Your task to perform on an android device: open app "Venmo" Image 0: 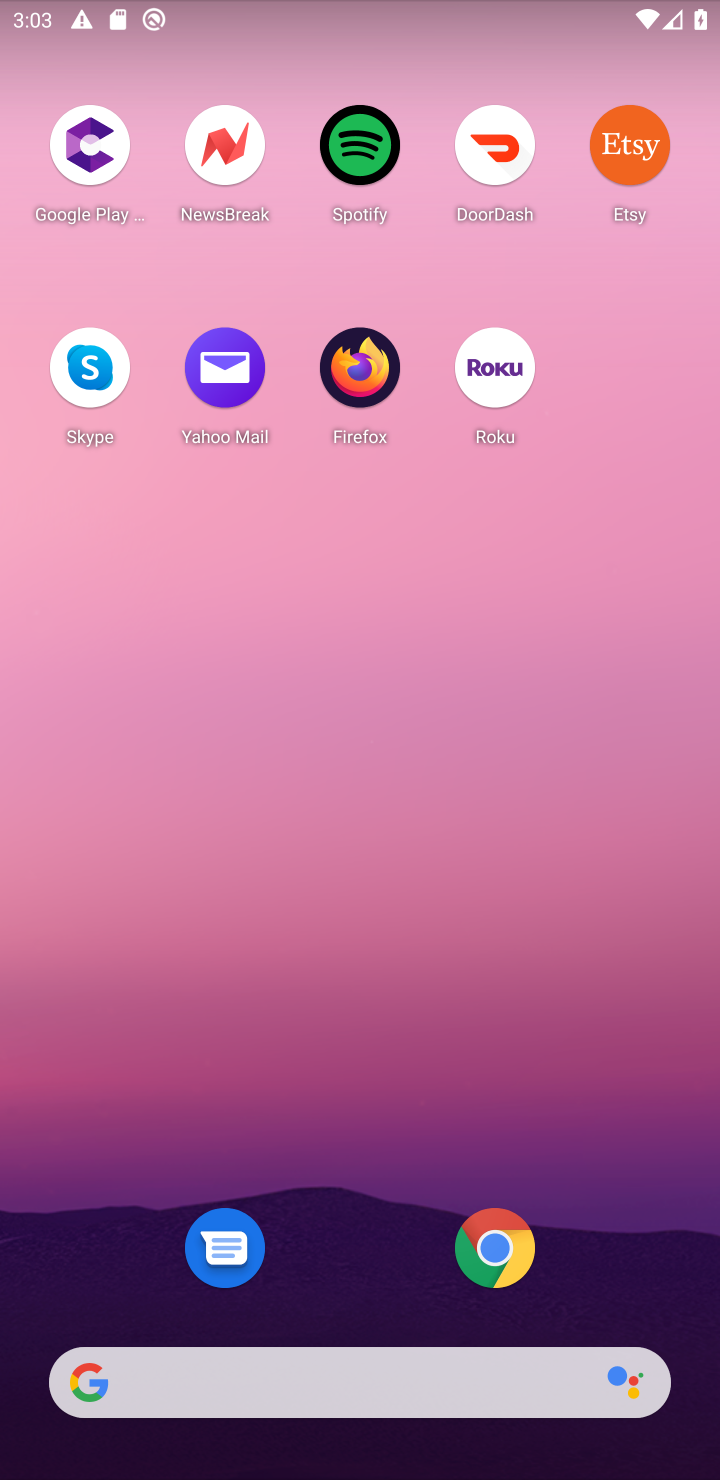
Step 0: drag from (392, 1168) to (349, 341)
Your task to perform on an android device: open app "Venmo" Image 1: 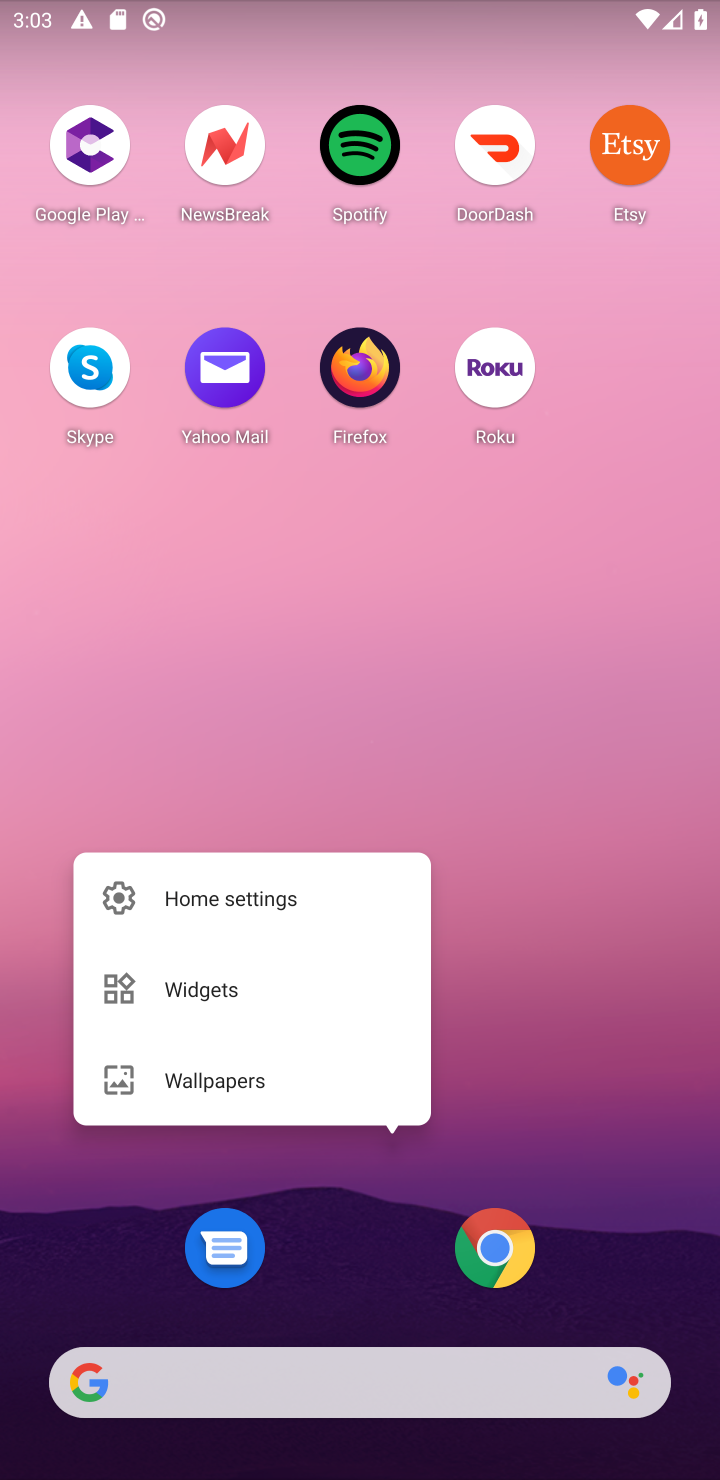
Step 1: click (518, 918)
Your task to perform on an android device: open app "Venmo" Image 2: 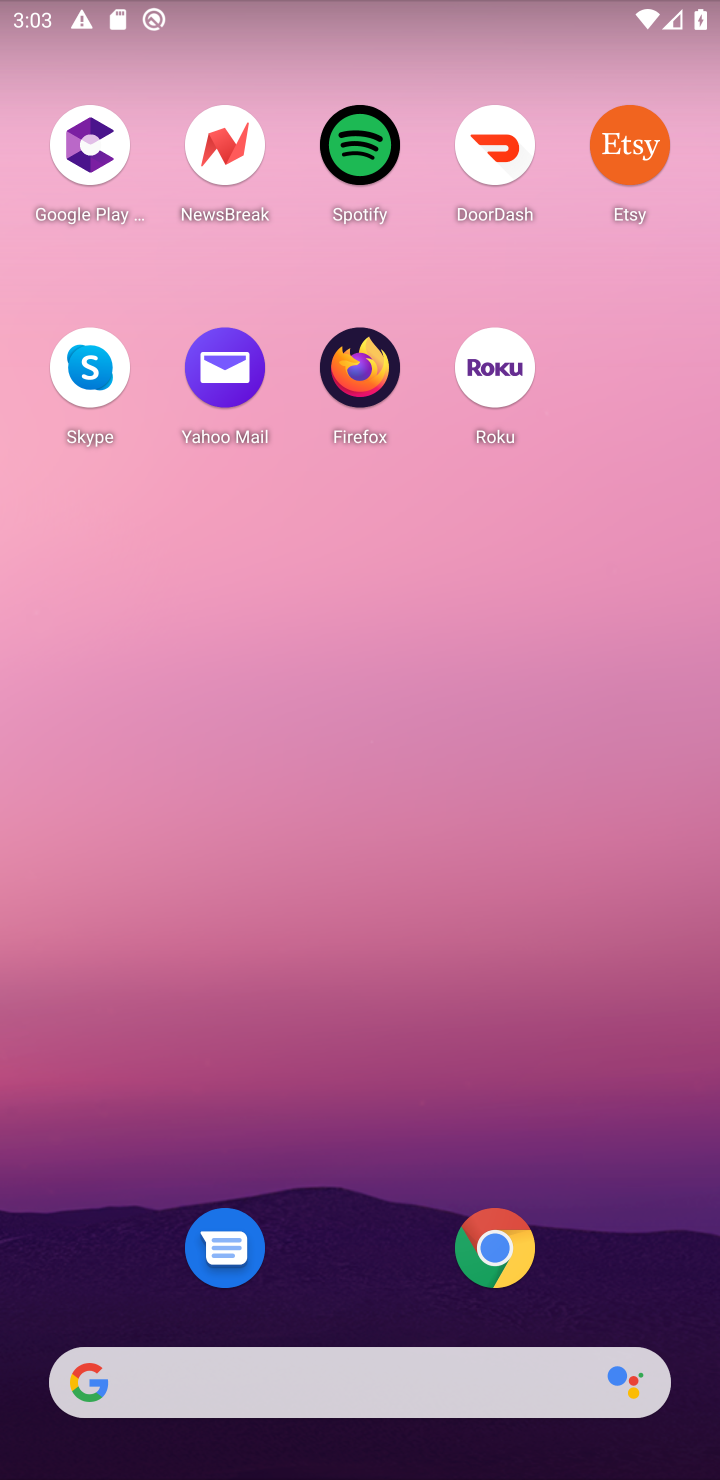
Step 2: drag from (329, 1329) to (243, 144)
Your task to perform on an android device: open app "Venmo" Image 3: 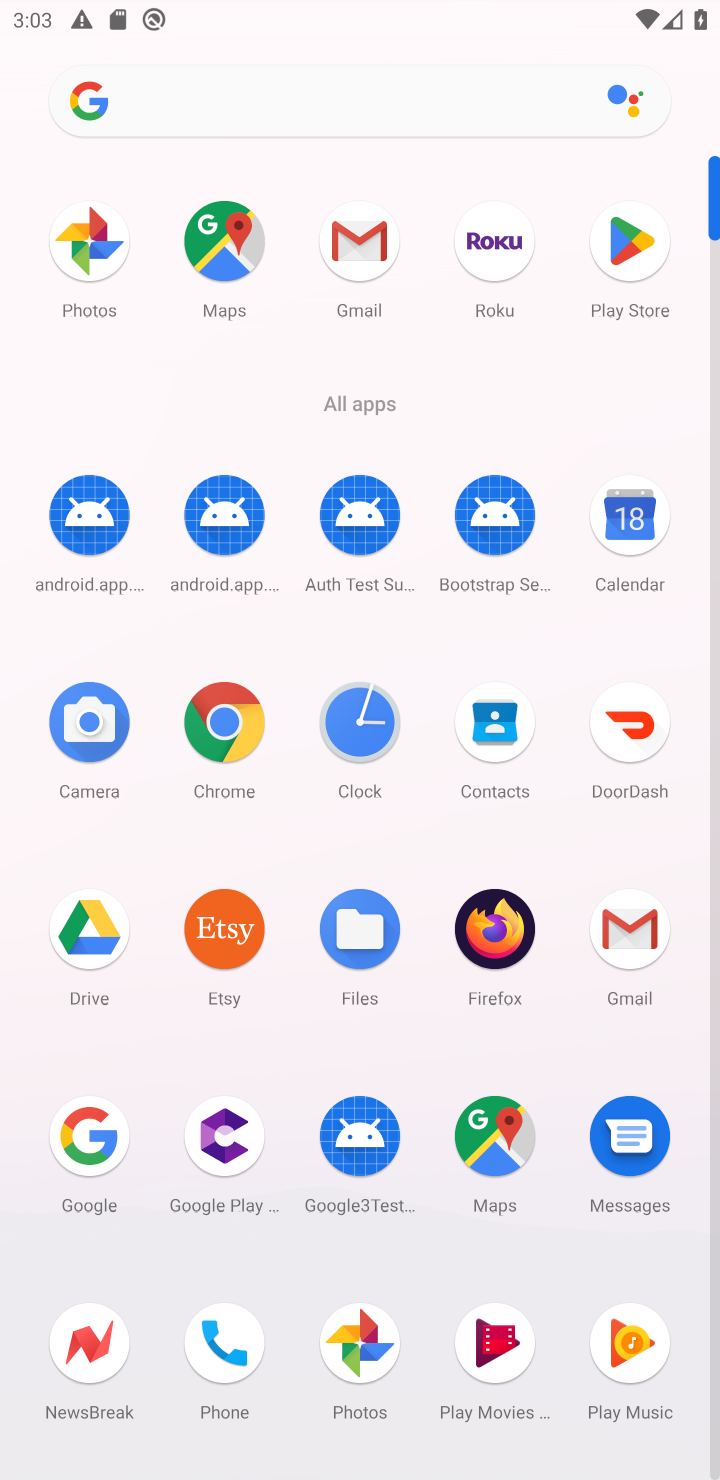
Step 3: click (628, 243)
Your task to perform on an android device: open app "Venmo" Image 4: 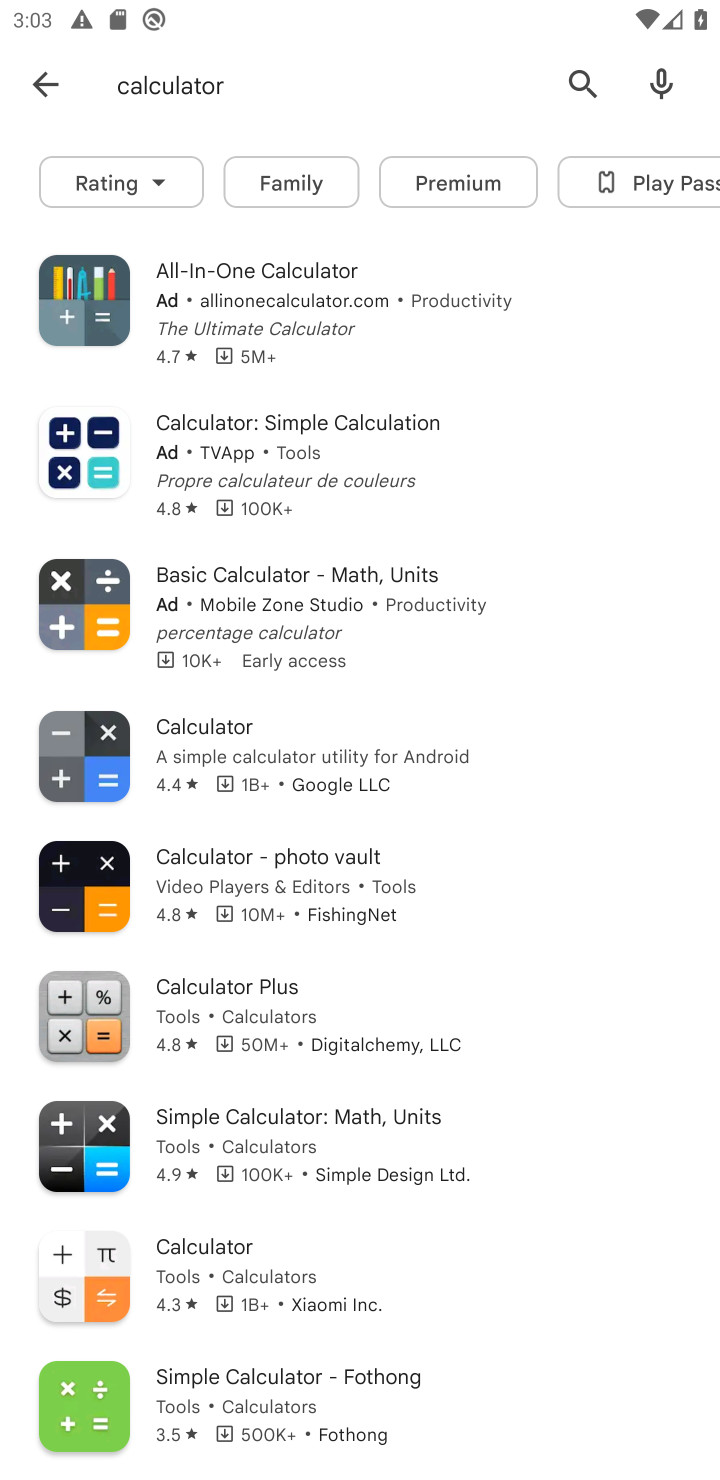
Step 4: click (567, 71)
Your task to perform on an android device: open app "Venmo" Image 5: 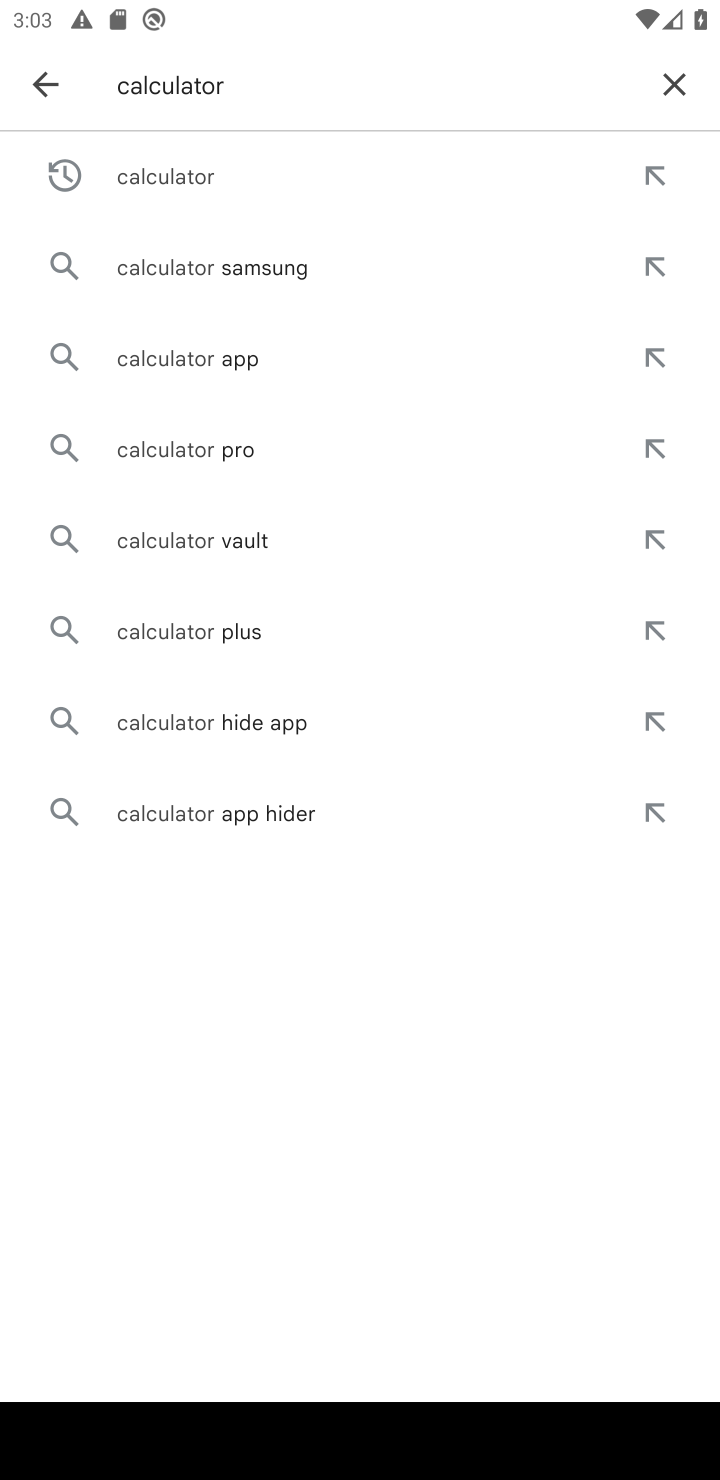
Step 5: click (667, 85)
Your task to perform on an android device: open app "Venmo" Image 6: 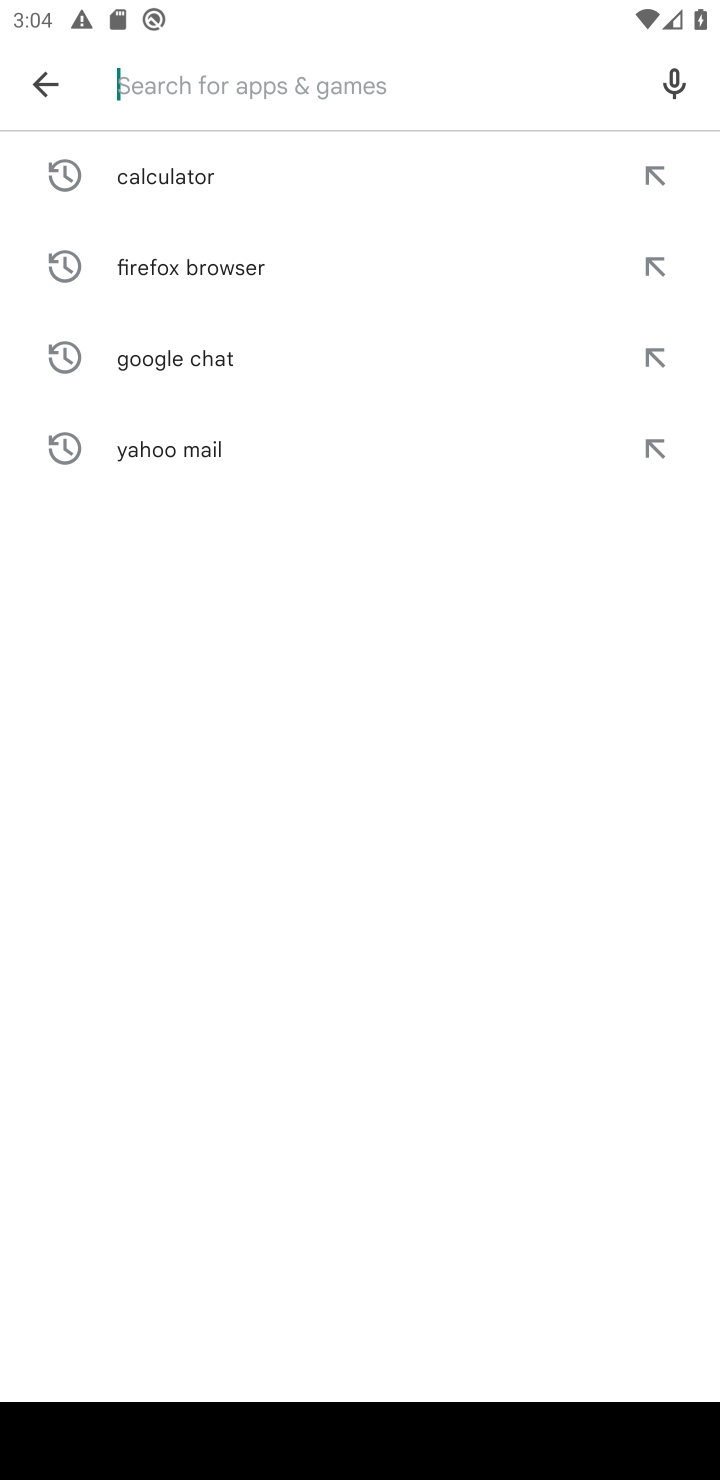
Step 6: type "Venmo"
Your task to perform on an android device: open app "Venmo" Image 7: 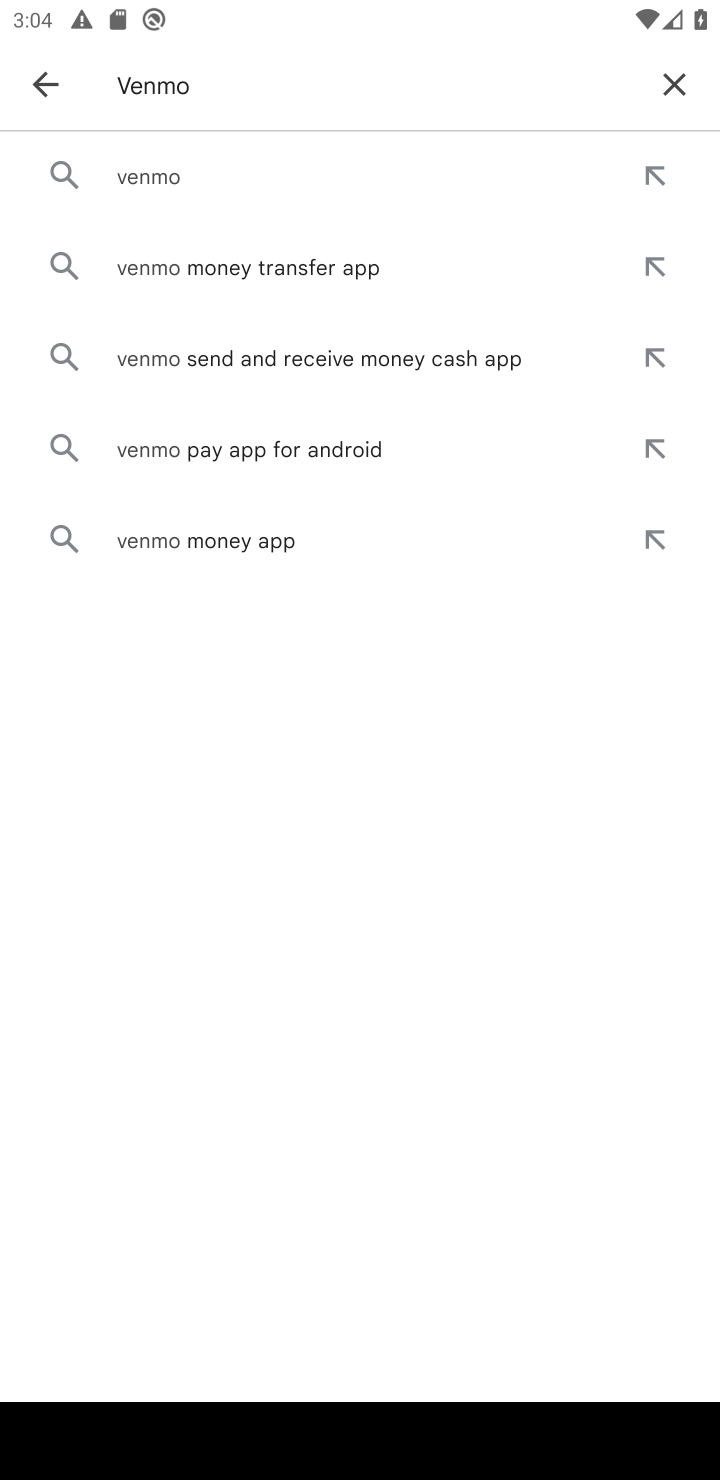
Step 7: click (134, 192)
Your task to perform on an android device: open app "Venmo" Image 8: 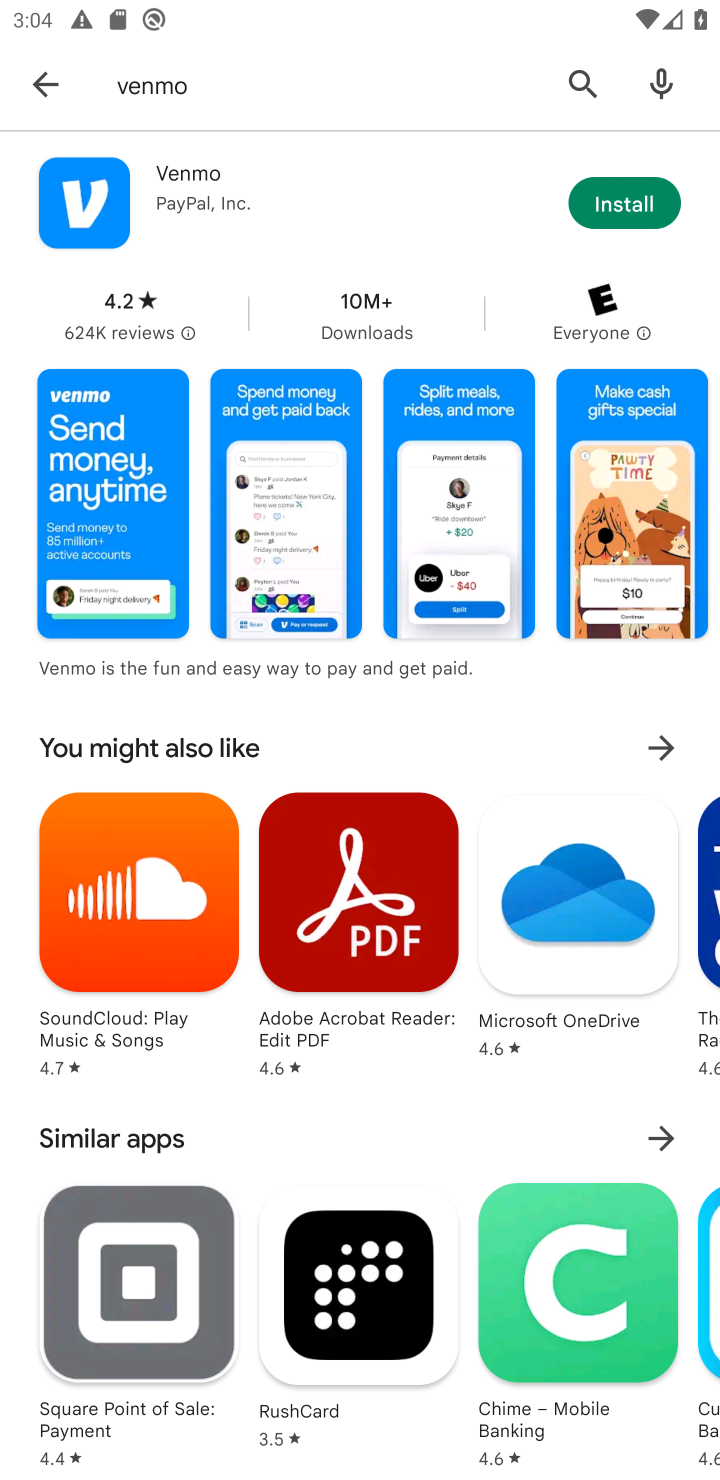
Step 8: task complete